Your task to perform on an android device: What's the news in Bolivia? Image 0: 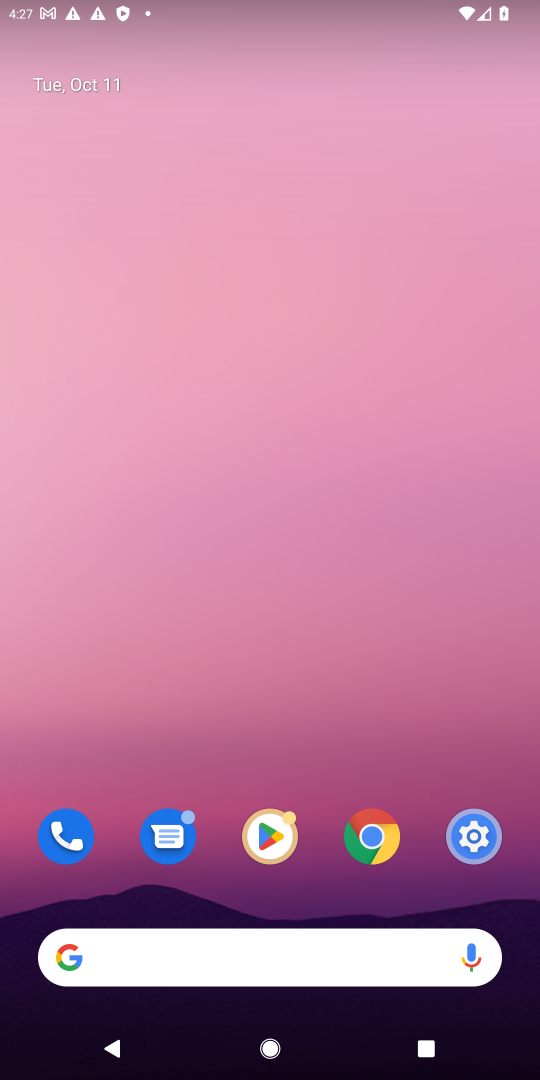
Step 0: click (366, 833)
Your task to perform on an android device: What's the news in Bolivia? Image 1: 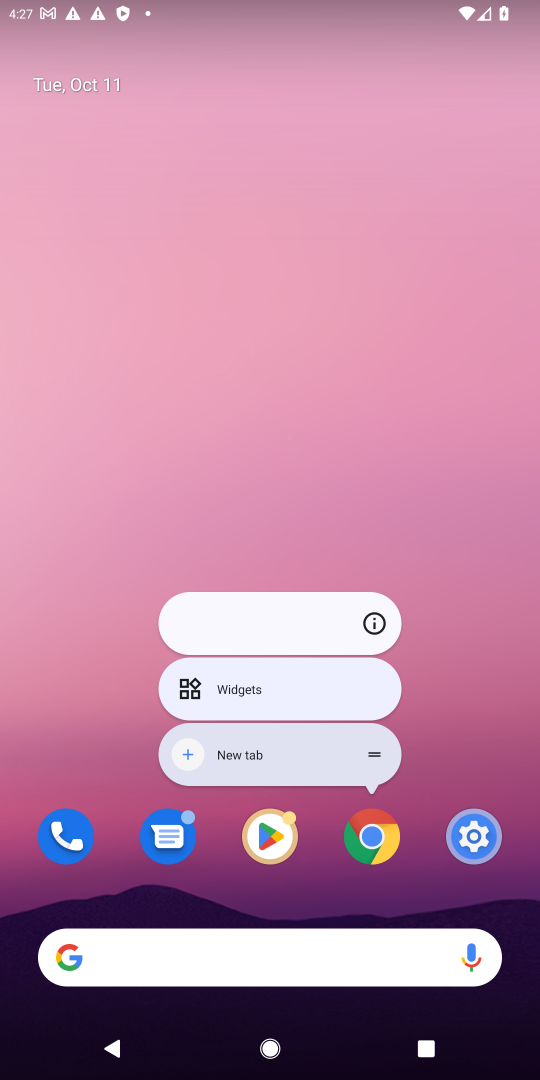
Step 1: click (377, 839)
Your task to perform on an android device: What's the news in Bolivia? Image 2: 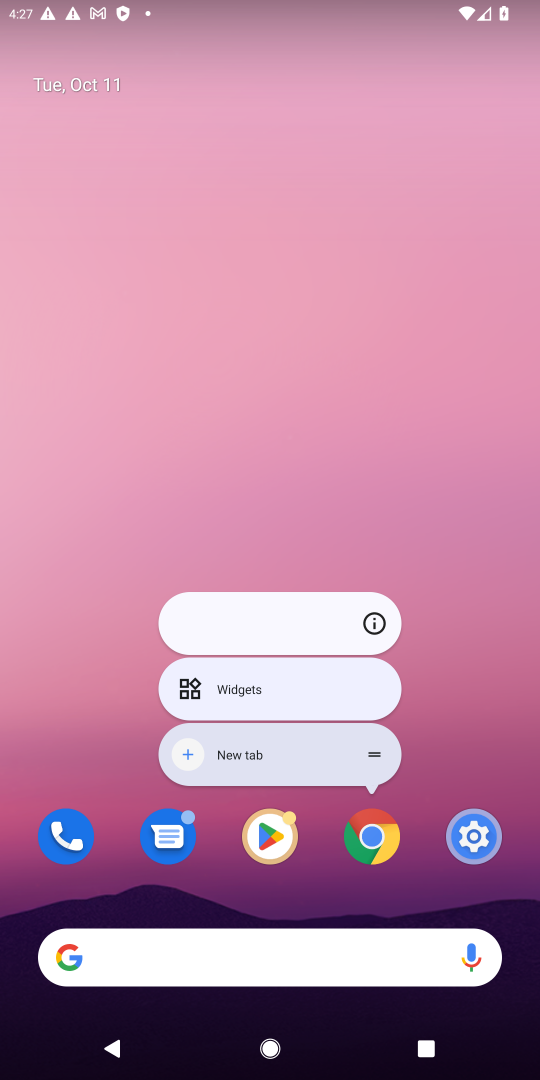
Step 2: click (377, 839)
Your task to perform on an android device: What's the news in Bolivia? Image 3: 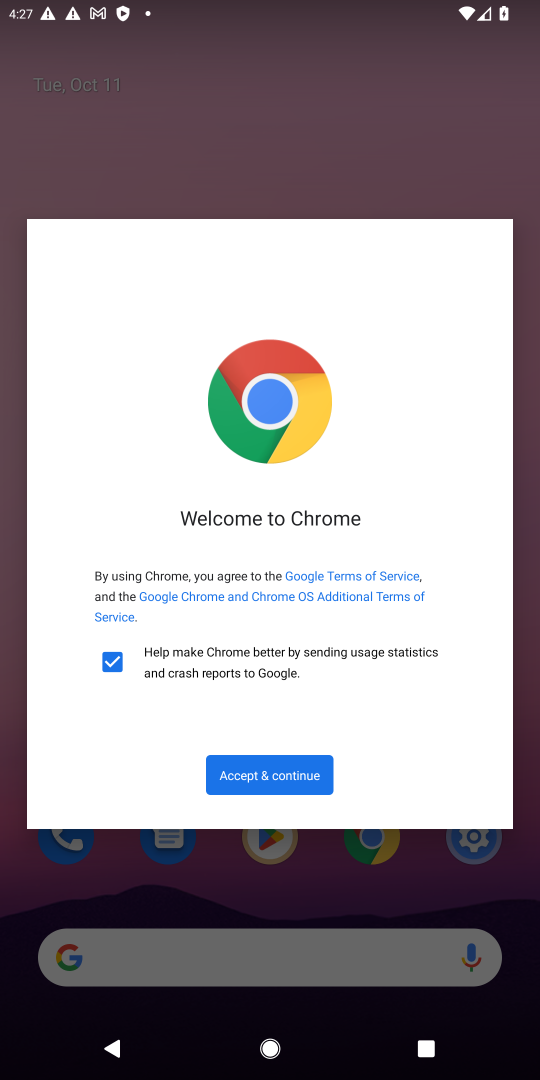
Step 3: click (265, 782)
Your task to perform on an android device: What's the news in Bolivia? Image 4: 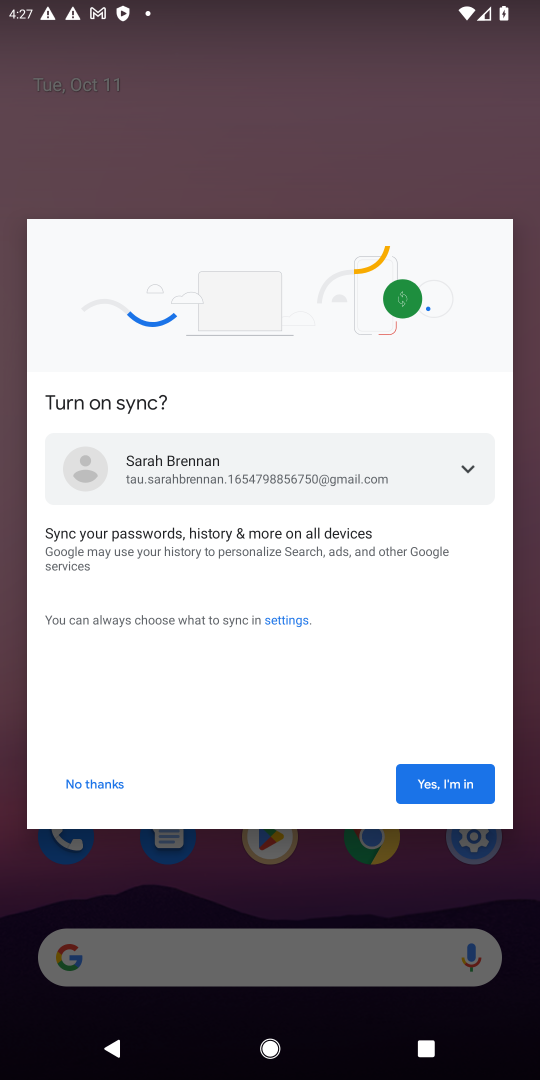
Step 4: click (437, 780)
Your task to perform on an android device: What's the news in Bolivia? Image 5: 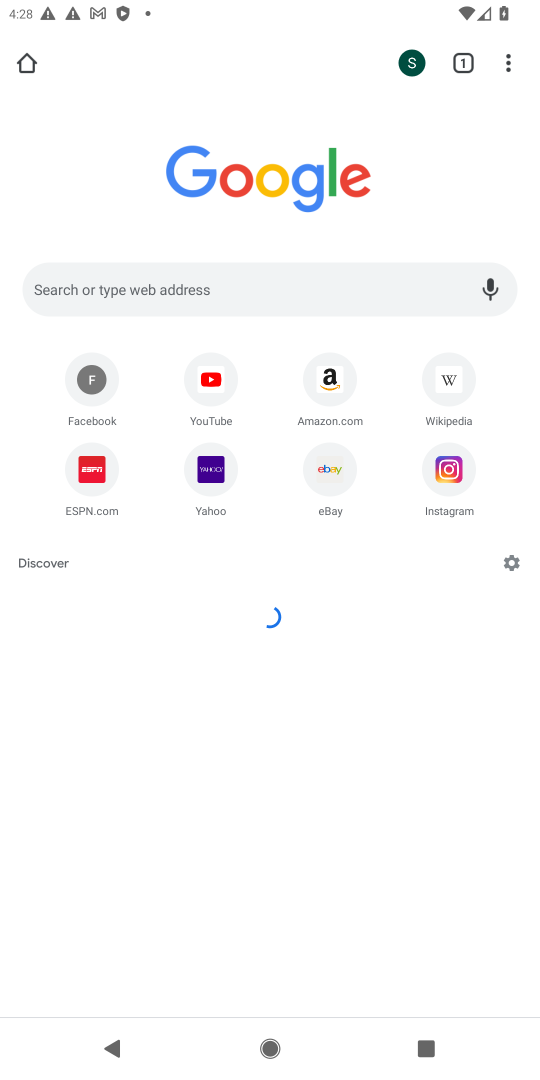
Step 5: click (283, 287)
Your task to perform on an android device: What's the news in Bolivia? Image 6: 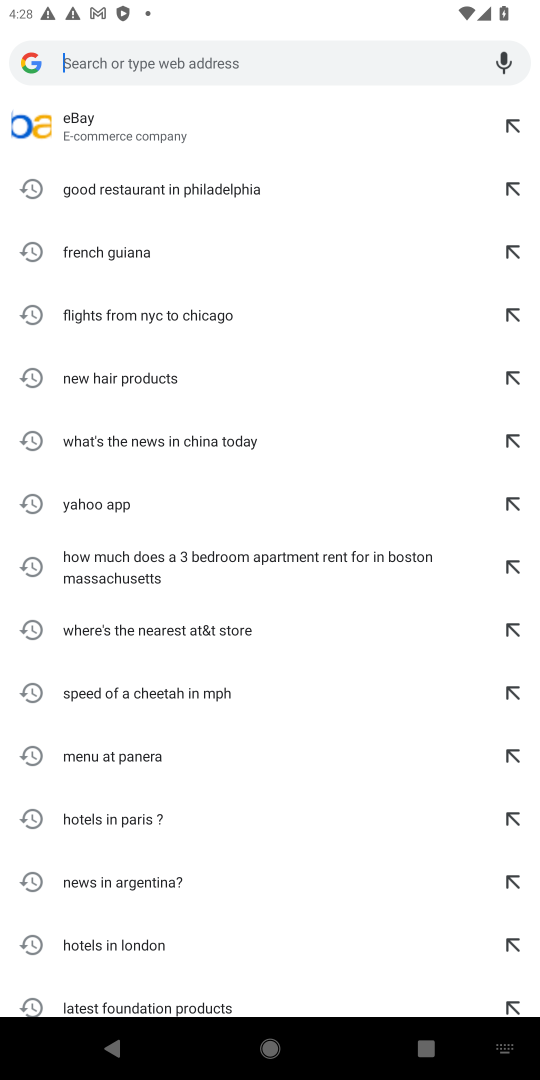
Step 6: type "news in Bolivia"
Your task to perform on an android device: What's the news in Bolivia? Image 7: 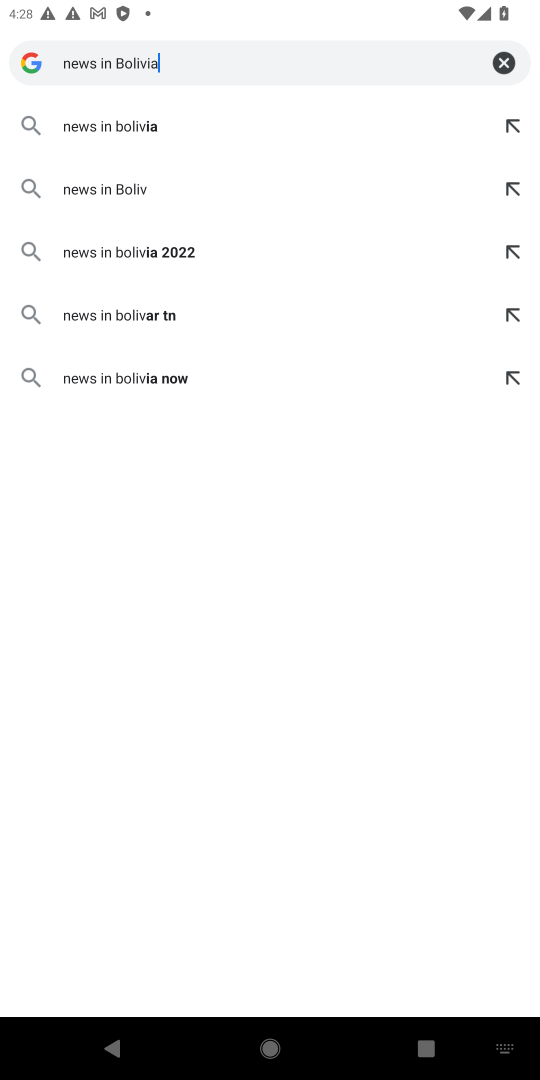
Step 7: press enter
Your task to perform on an android device: What's the news in Bolivia? Image 8: 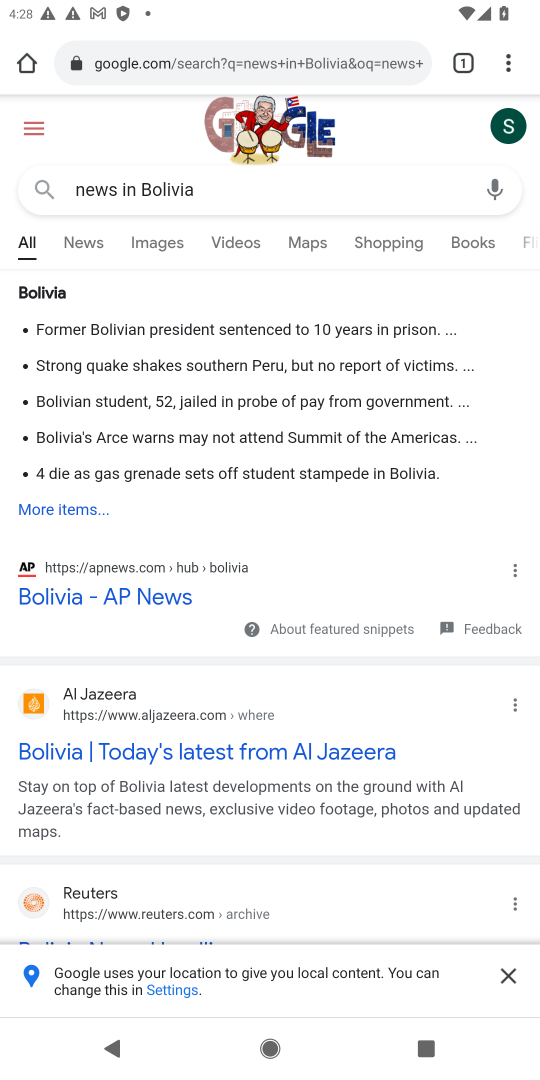
Step 8: click (75, 237)
Your task to perform on an android device: What's the news in Bolivia? Image 9: 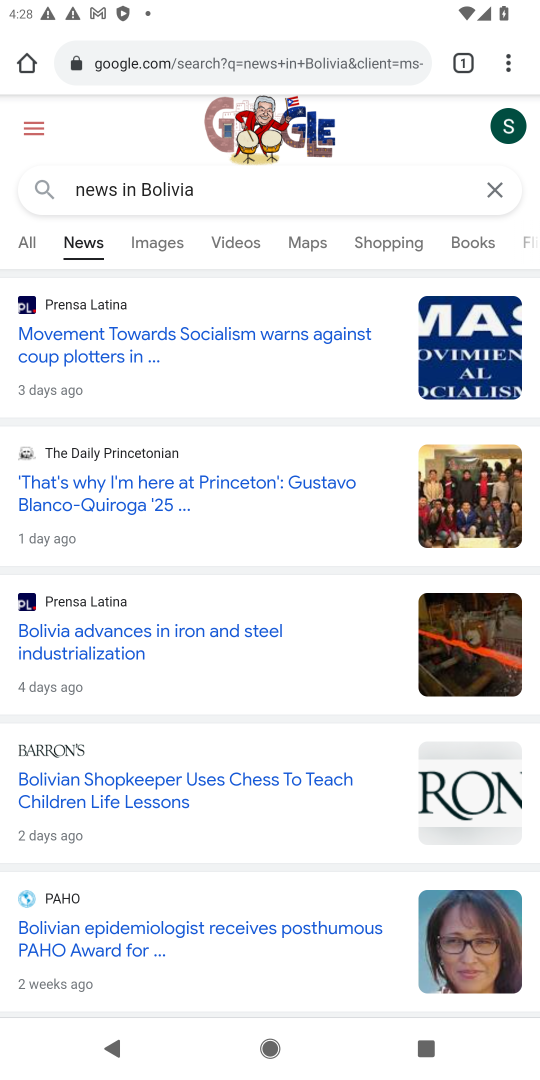
Step 9: task complete